Your task to perform on an android device: Go to Yahoo.com Image 0: 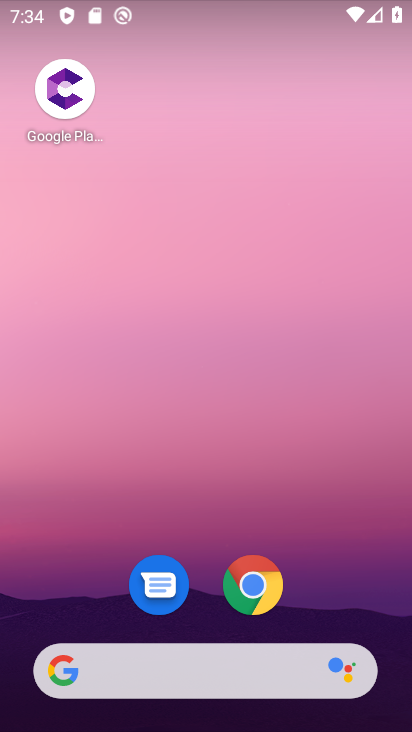
Step 0: click (190, 678)
Your task to perform on an android device: Go to Yahoo.com Image 1: 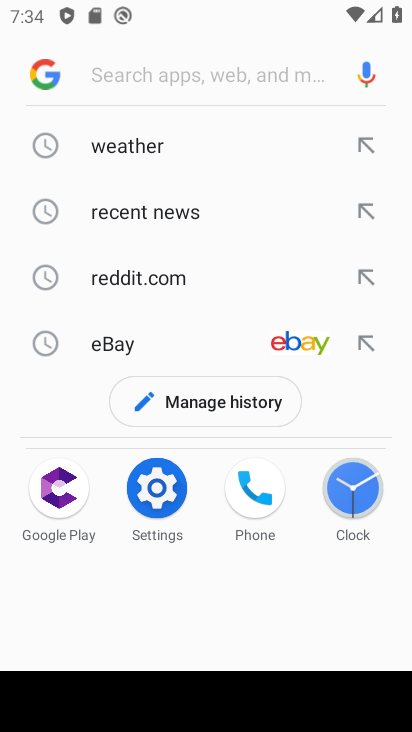
Step 1: type "yahoo.com"
Your task to perform on an android device: Go to Yahoo.com Image 2: 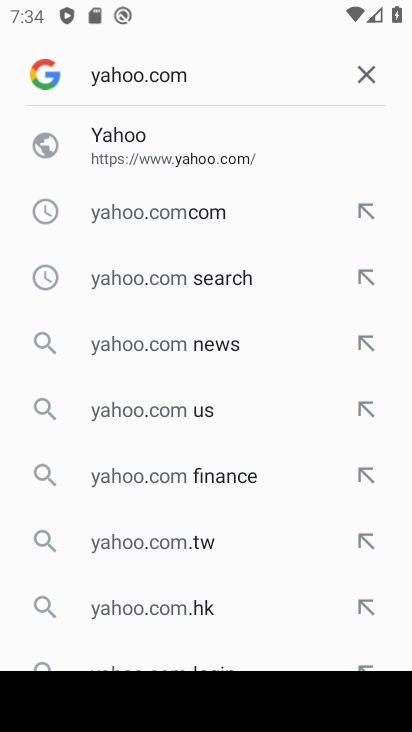
Step 2: click (114, 152)
Your task to perform on an android device: Go to Yahoo.com Image 3: 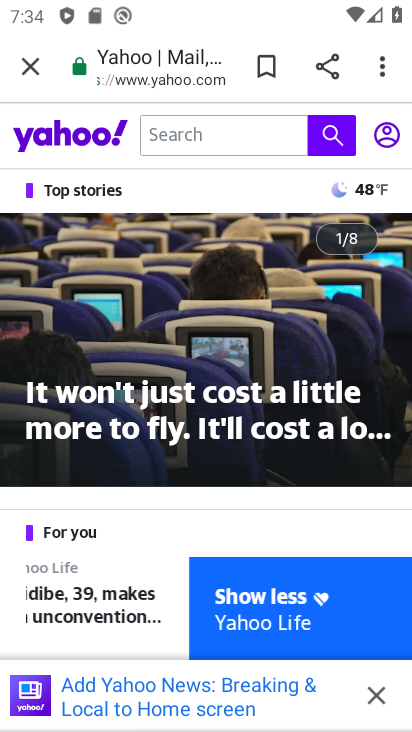
Step 3: task complete